Your task to perform on an android device: turn on the 24-hour format for clock Image 0: 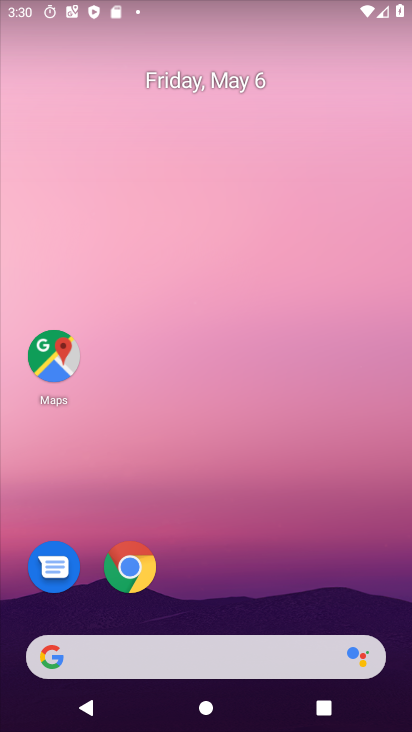
Step 0: drag from (233, 597) to (272, 332)
Your task to perform on an android device: turn on the 24-hour format for clock Image 1: 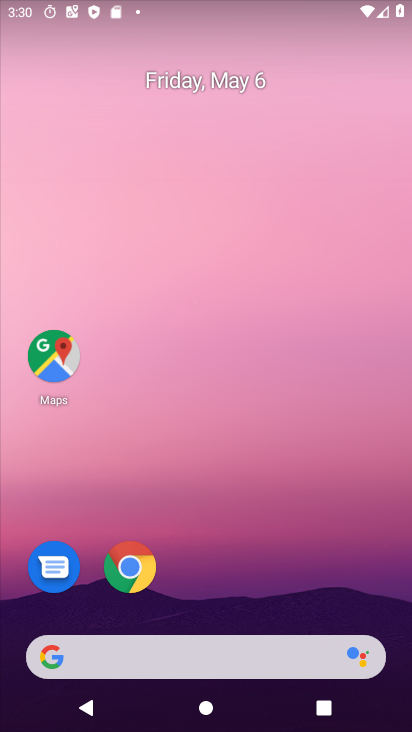
Step 1: drag from (242, 574) to (275, 217)
Your task to perform on an android device: turn on the 24-hour format for clock Image 2: 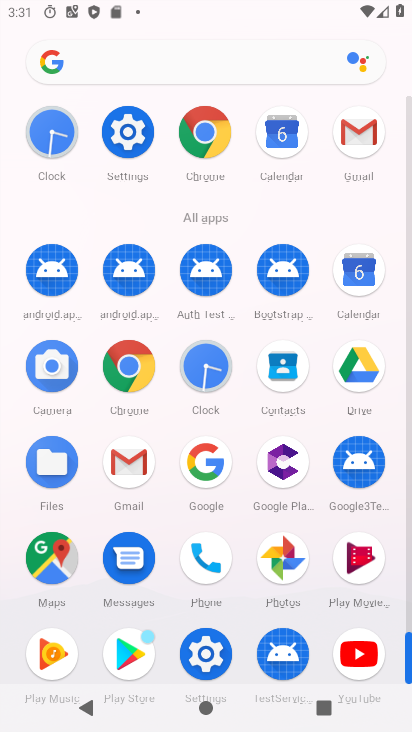
Step 2: click (45, 132)
Your task to perform on an android device: turn on the 24-hour format for clock Image 3: 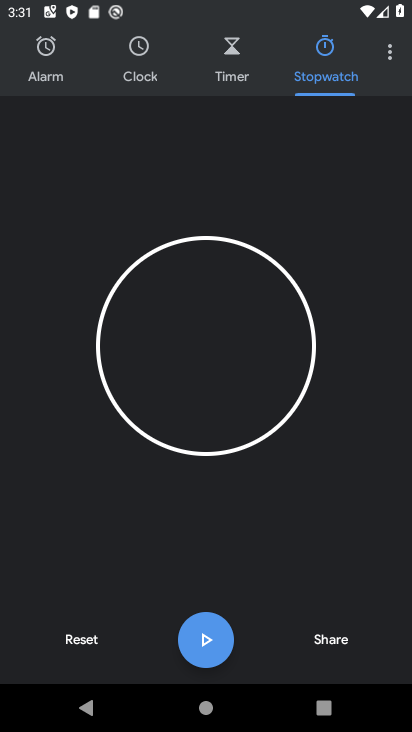
Step 3: click (387, 54)
Your task to perform on an android device: turn on the 24-hour format for clock Image 4: 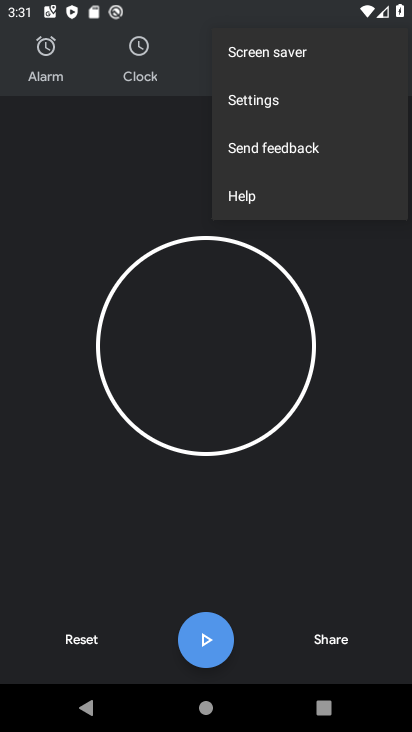
Step 4: click (298, 106)
Your task to perform on an android device: turn on the 24-hour format for clock Image 5: 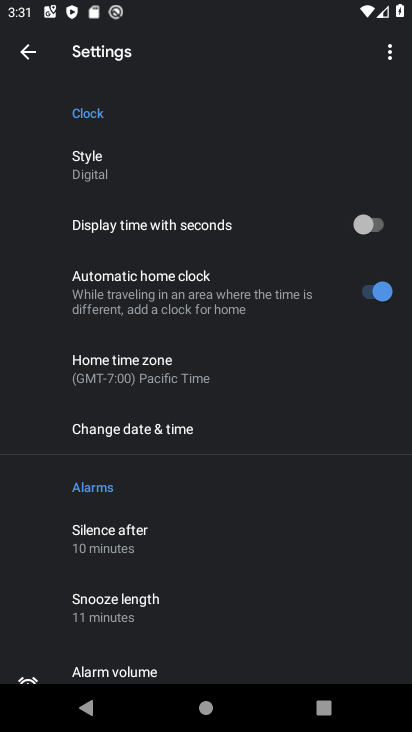
Step 5: click (195, 424)
Your task to perform on an android device: turn on the 24-hour format for clock Image 6: 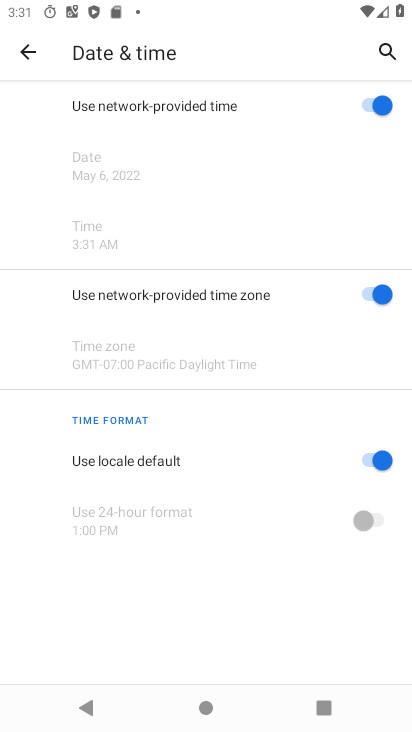
Step 6: click (371, 458)
Your task to perform on an android device: turn on the 24-hour format for clock Image 7: 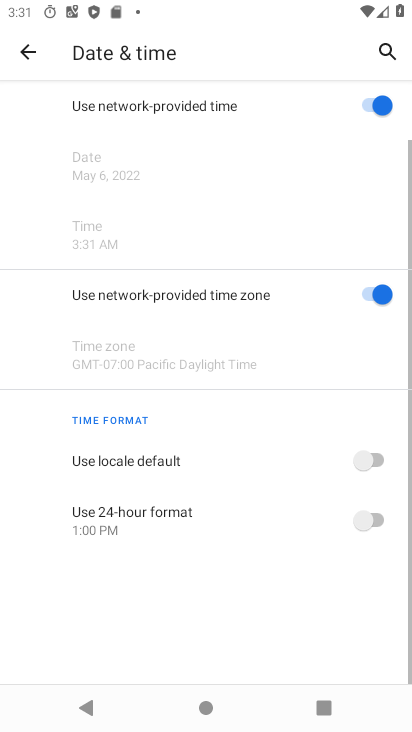
Step 7: click (378, 528)
Your task to perform on an android device: turn on the 24-hour format for clock Image 8: 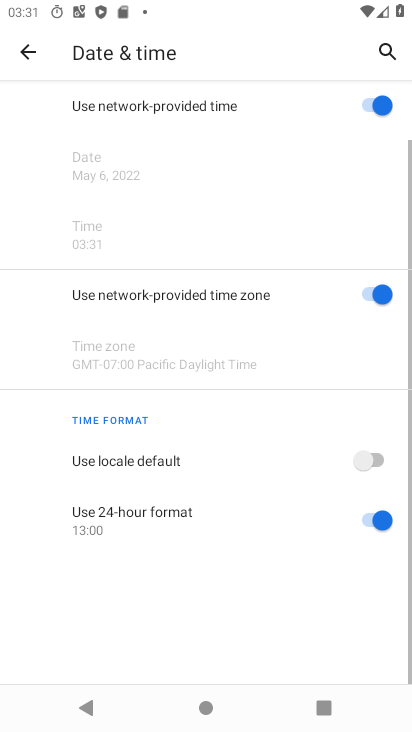
Step 8: task complete